Your task to perform on an android device: Go to Google maps Image 0: 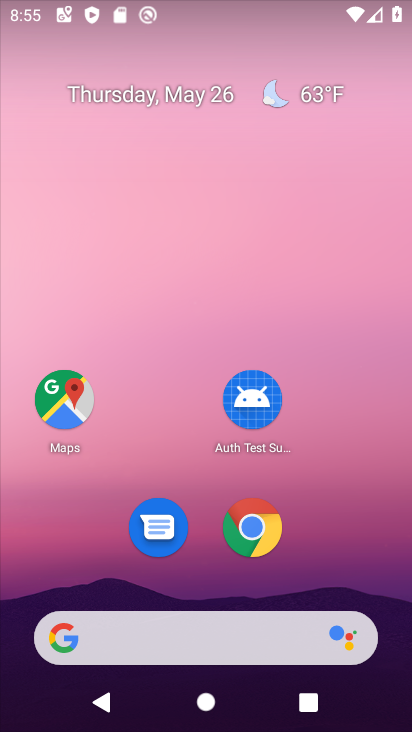
Step 0: drag from (326, 510) to (333, 103)
Your task to perform on an android device: Go to Google maps Image 1: 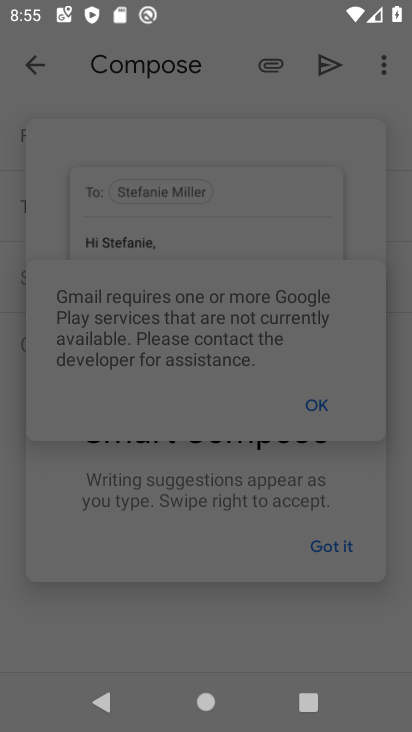
Step 1: press home button
Your task to perform on an android device: Go to Google maps Image 2: 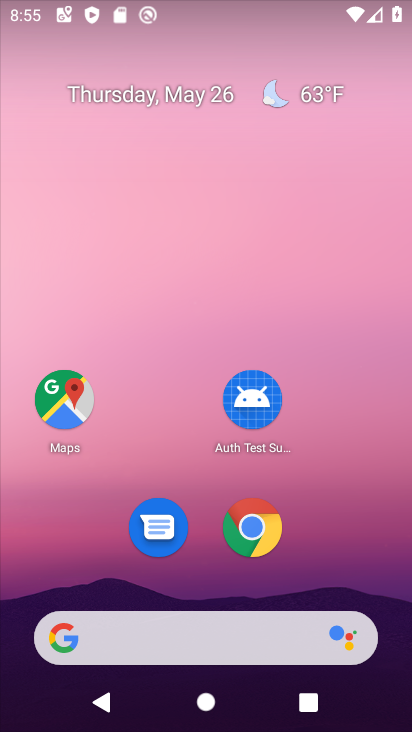
Step 2: drag from (322, 554) to (294, 95)
Your task to perform on an android device: Go to Google maps Image 3: 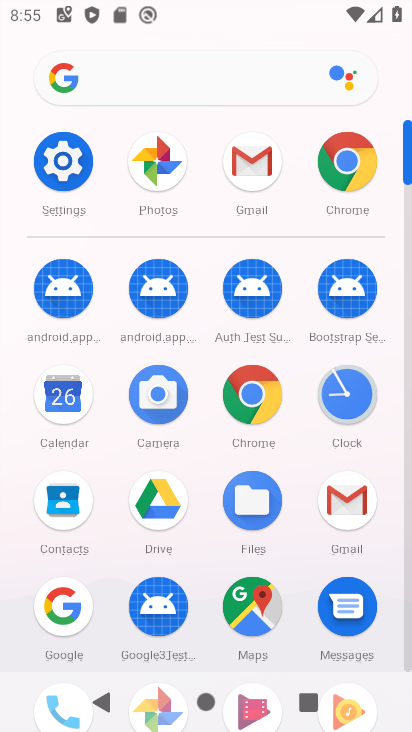
Step 3: click (255, 622)
Your task to perform on an android device: Go to Google maps Image 4: 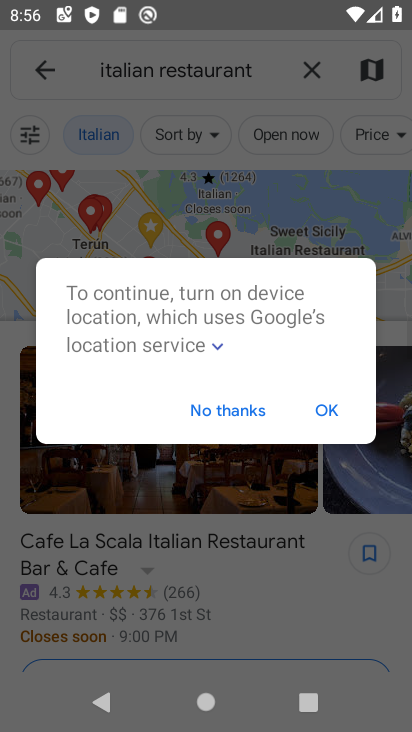
Step 4: task complete